Your task to perform on an android device: Do I have any events today? Image 0: 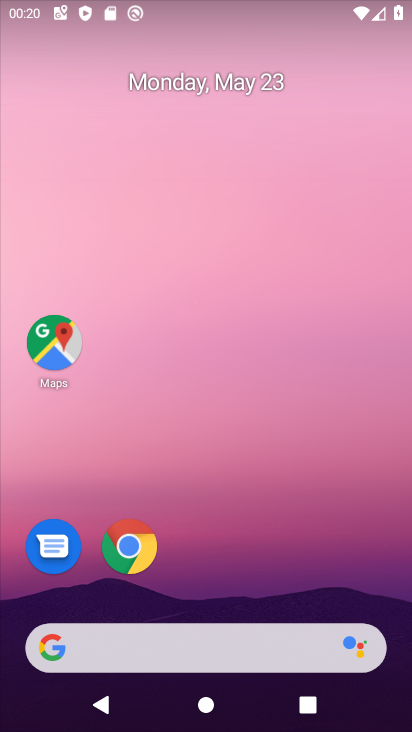
Step 0: click (375, 78)
Your task to perform on an android device: Do I have any events today? Image 1: 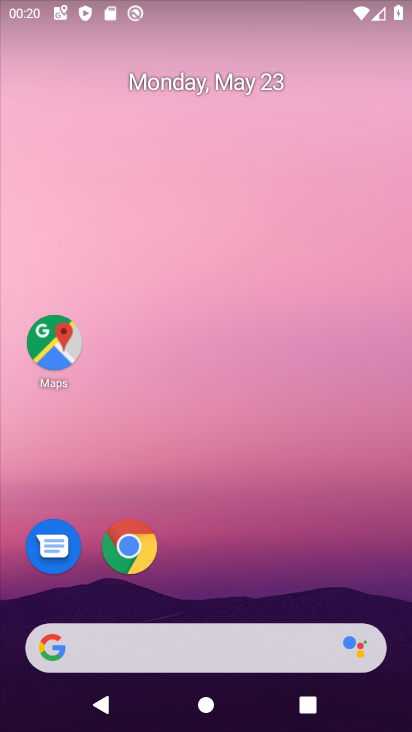
Step 1: drag from (206, 572) to (325, 196)
Your task to perform on an android device: Do I have any events today? Image 2: 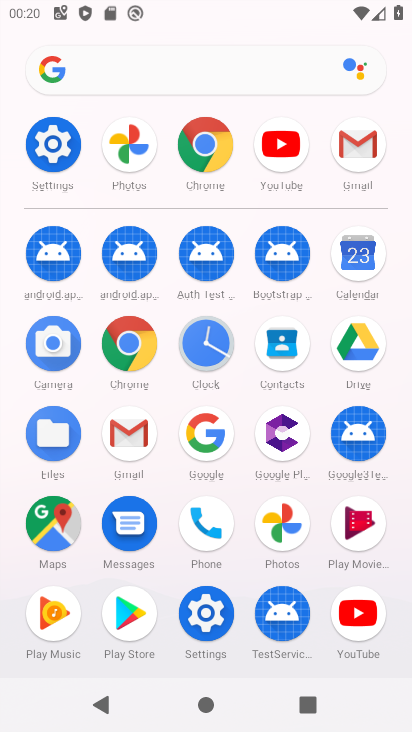
Step 2: drag from (222, 618) to (300, 237)
Your task to perform on an android device: Do I have any events today? Image 3: 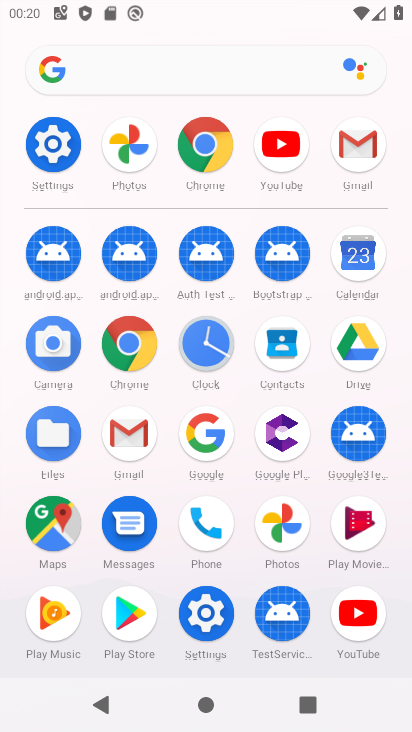
Step 3: drag from (236, 587) to (271, 331)
Your task to perform on an android device: Do I have any events today? Image 4: 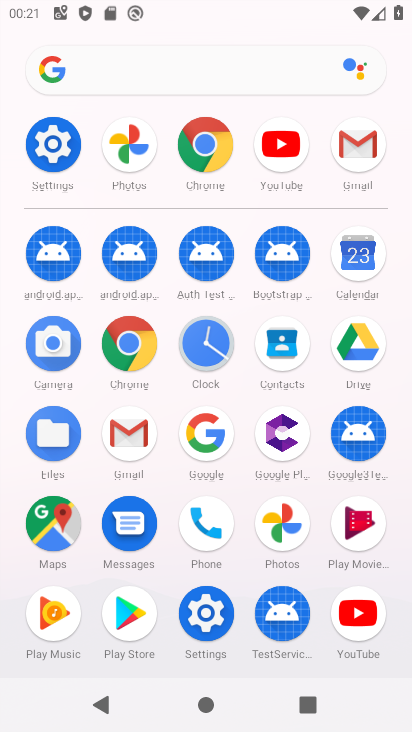
Step 4: click (353, 247)
Your task to perform on an android device: Do I have any events today? Image 5: 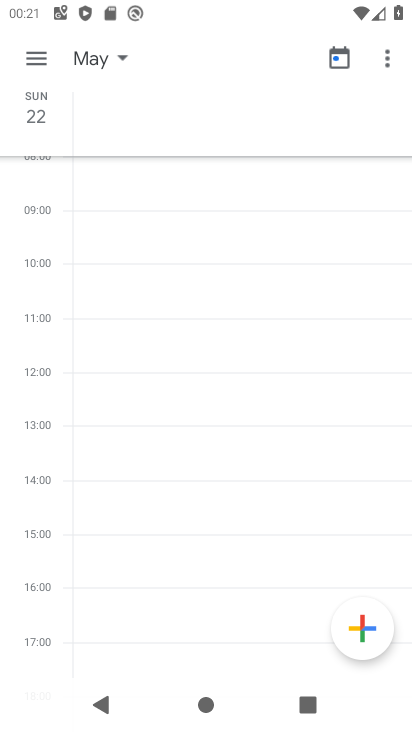
Step 5: click (112, 37)
Your task to perform on an android device: Do I have any events today? Image 6: 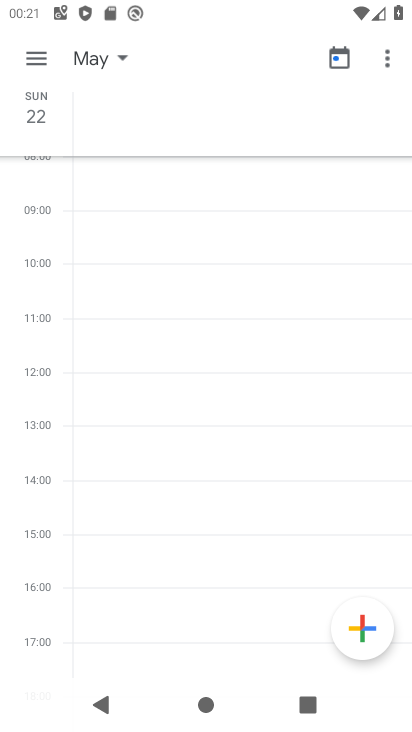
Step 6: click (117, 48)
Your task to perform on an android device: Do I have any events today? Image 7: 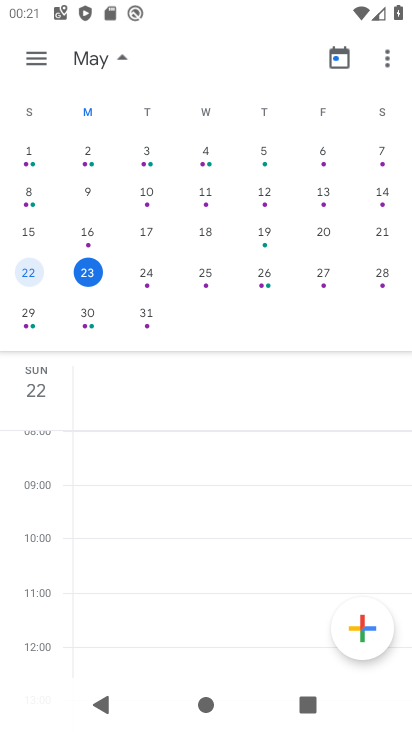
Step 7: click (34, 270)
Your task to perform on an android device: Do I have any events today? Image 8: 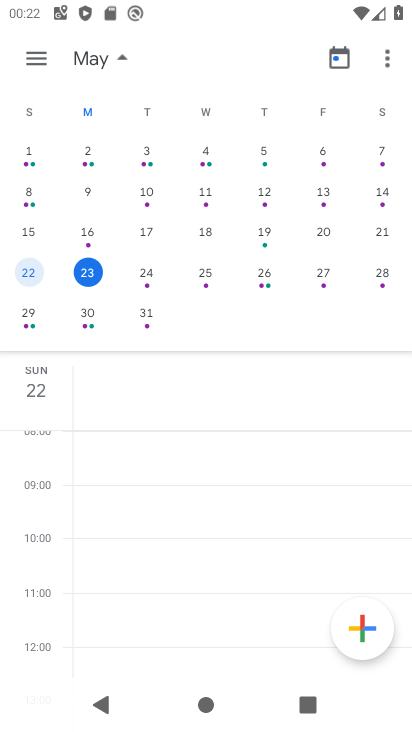
Step 8: click (87, 270)
Your task to perform on an android device: Do I have any events today? Image 9: 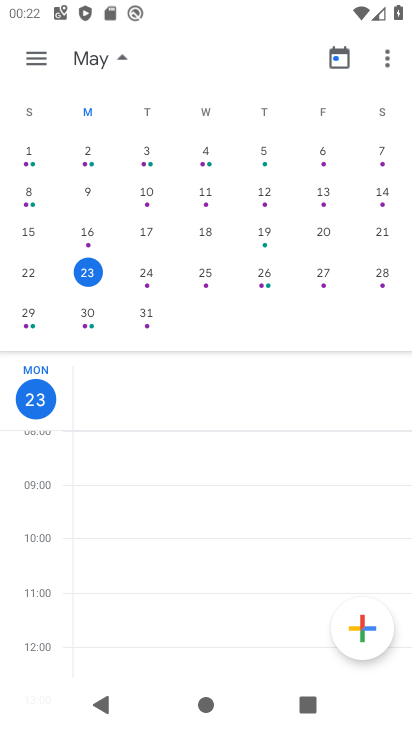
Step 9: task complete